Your task to perform on an android device: Open Maps and search for coffee Image 0: 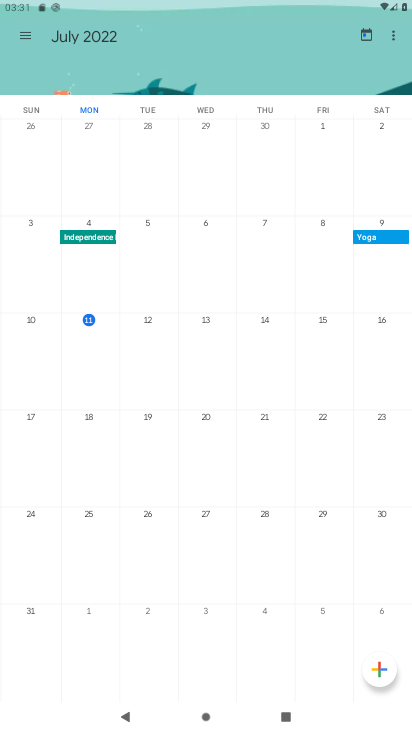
Step 0: press home button
Your task to perform on an android device: Open Maps and search for coffee Image 1: 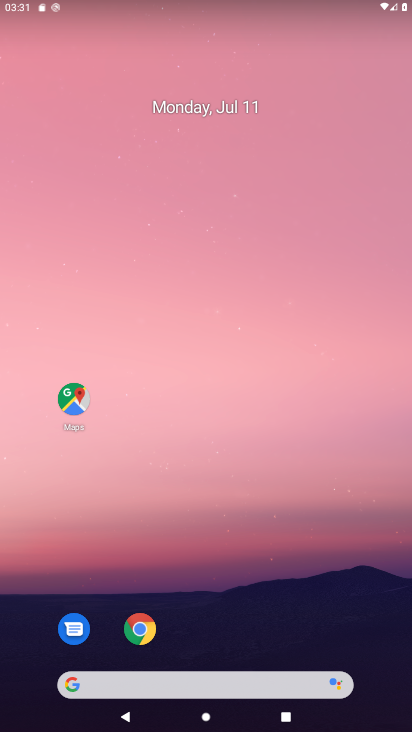
Step 1: click (76, 396)
Your task to perform on an android device: Open Maps and search for coffee Image 2: 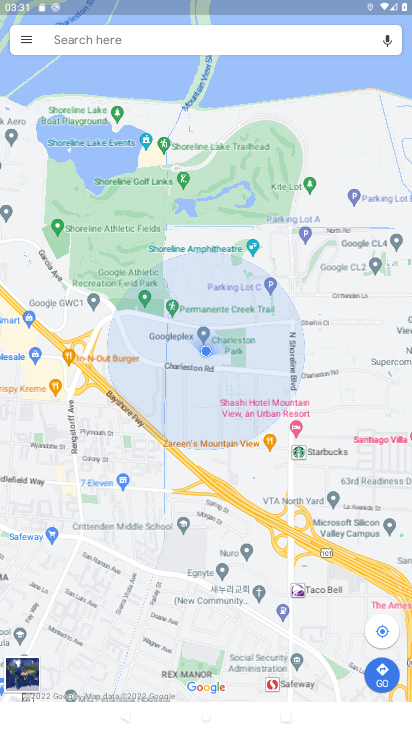
Step 2: click (131, 39)
Your task to perform on an android device: Open Maps and search for coffee Image 3: 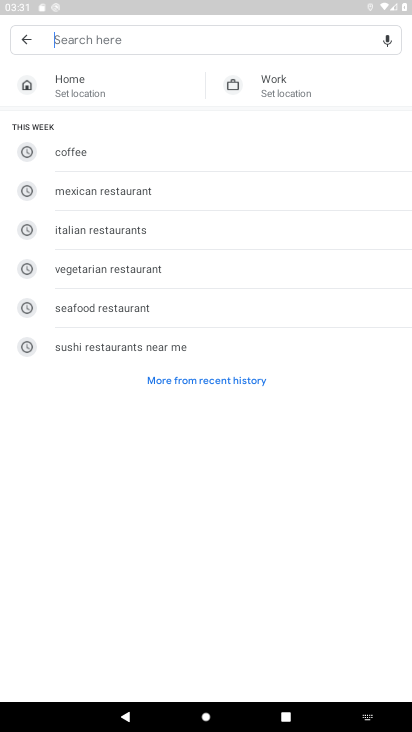
Step 3: type "coffee"
Your task to perform on an android device: Open Maps and search for coffee Image 4: 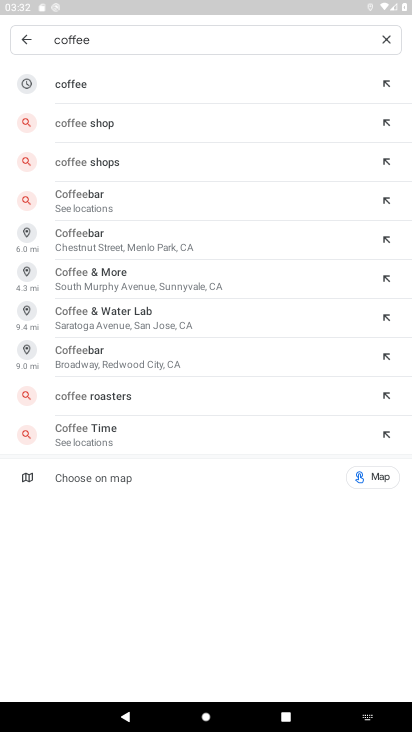
Step 4: click (76, 71)
Your task to perform on an android device: Open Maps and search for coffee Image 5: 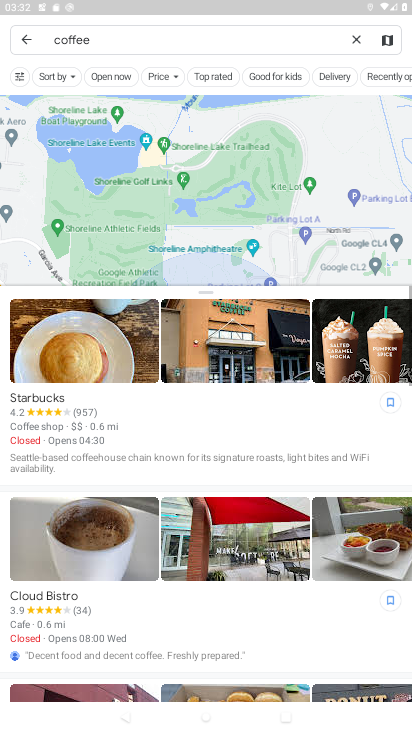
Step 5: task complete